Your task to perform on an android device: Go to Android settings Image 0: 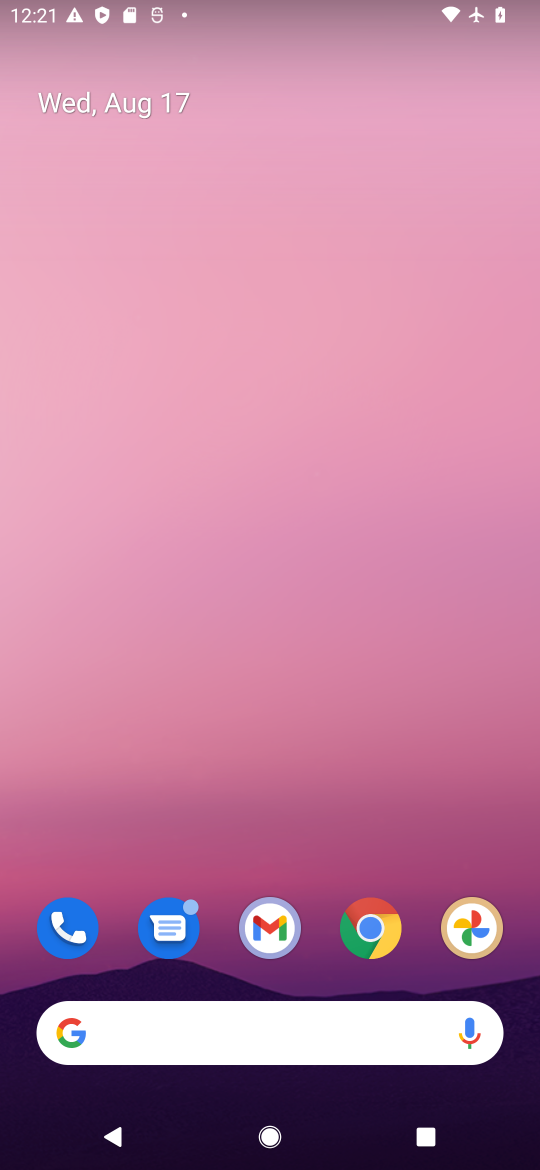
Step 0: drag from (329, 560) to (329, 162)
Your task to perform on an android device: Go to Android settings Image 1: 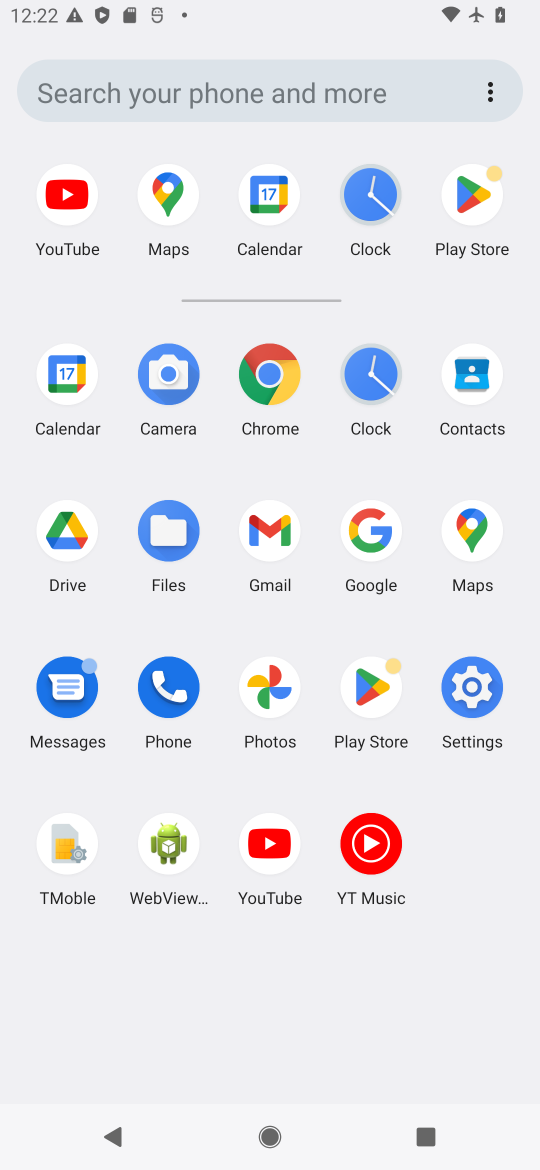
Step 1: click (463, 713)
Your task to perform on an android device: Go to Android settings Image 2: 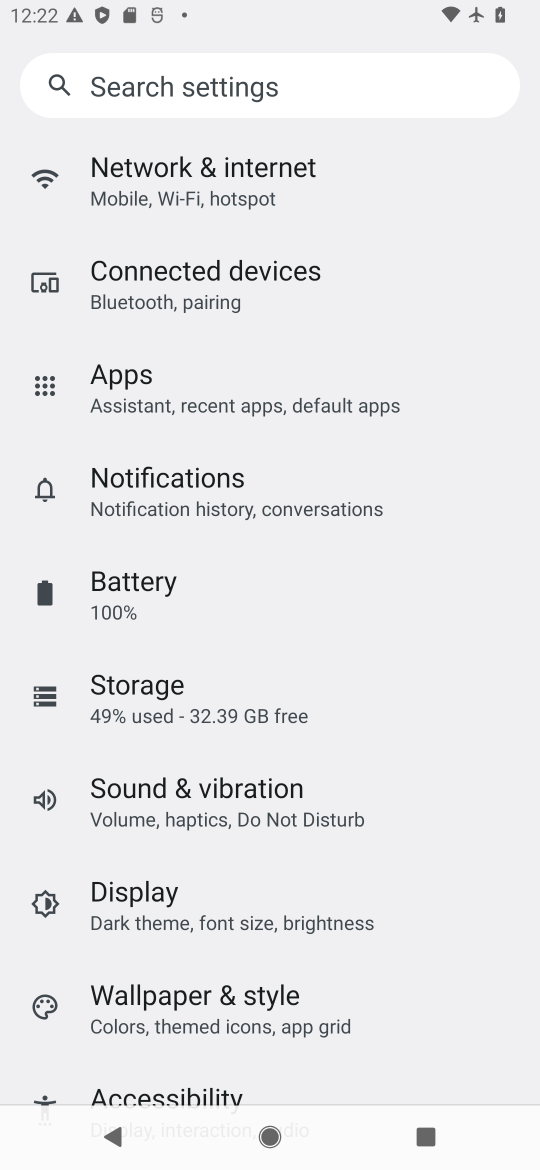
Step 2: task complete